Your task to perform on an android device: allow notifications from all sites in the chrome app Image 0: 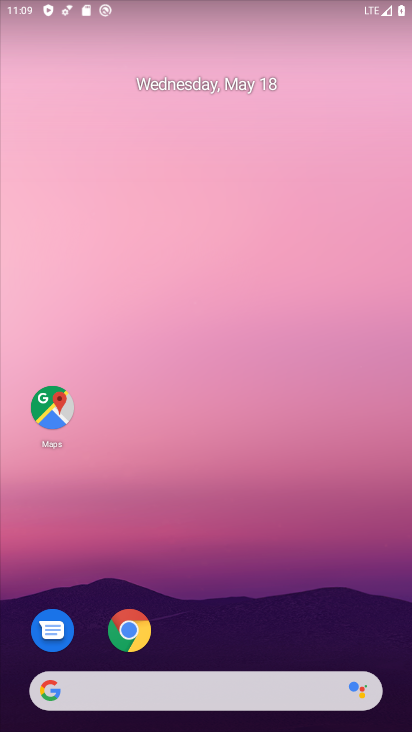
Step 0: drag from (209, 628) to (234, 143)
Your task to perform on an android device: allow notifications from all sites in the chrome app Image 1: 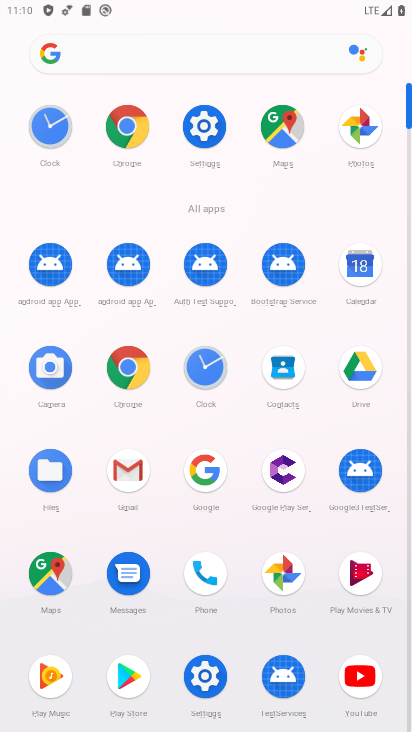
Step 1: click (122, 364)
Your task to perform on an android device: allow notifications from all sites in the chrome app Image 2: 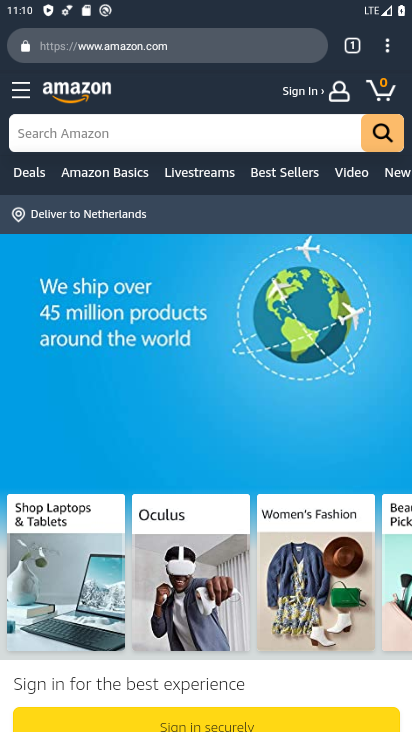
Step 2: click (382, 45)
Your task to perform on an android device: allow notifications from all sites in the chrome app Image 3: 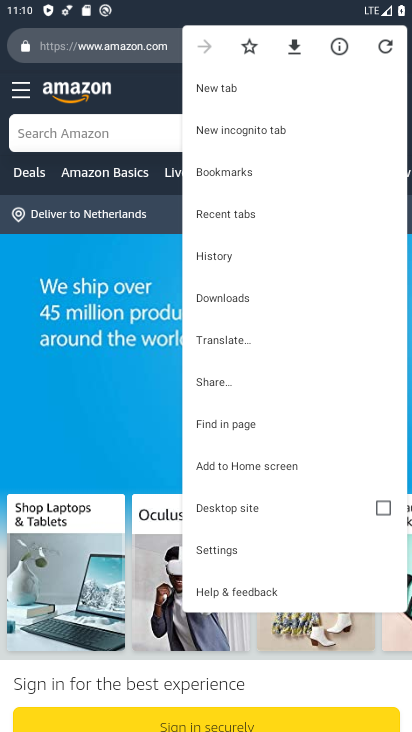
Step 3: click (233, 554)
Your task to perform on an android device: allow notifications from all sites in the chrome app Image 4: 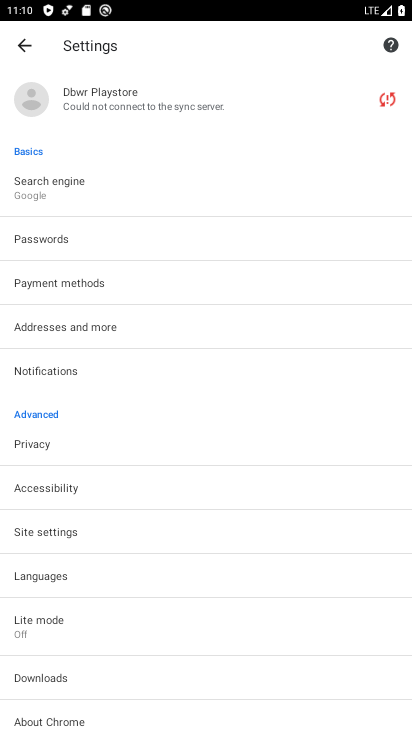
Step 4: click (61, 369)
Your task to perform on an android device: allow notifications from all sites in the chrome app Image 5: 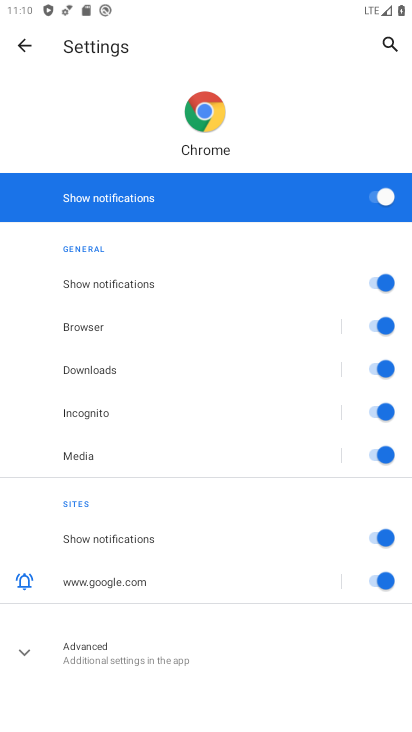
Step 5: task complete